Your task to perform on an android device: remove spam from my inbox in the gmail app Image 0: 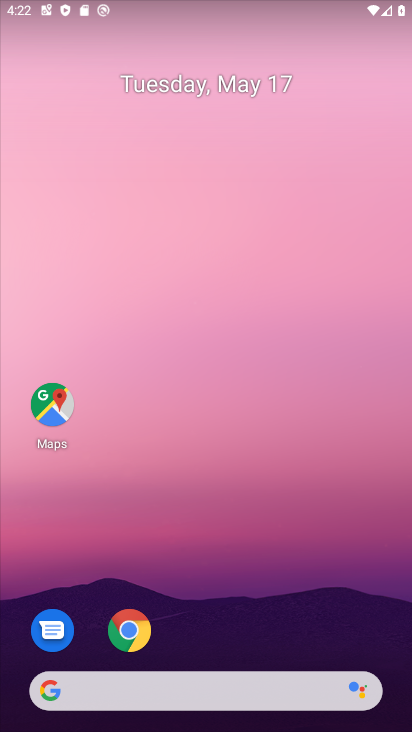
Step 0: drag from (232, 719) to (232, 182)
Your task to perform on an android device: remove spam from my inbox in the gmail app Image 1: 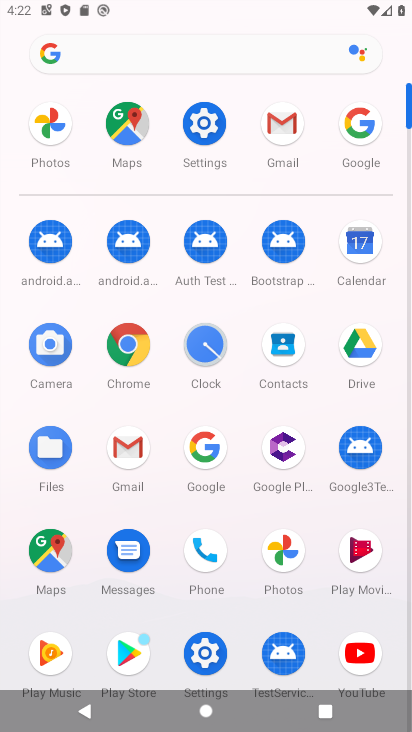
Step 1: click (125, 449)
Your task to perform on an android device: remove spam from my inbox in the gmail app Image 2: 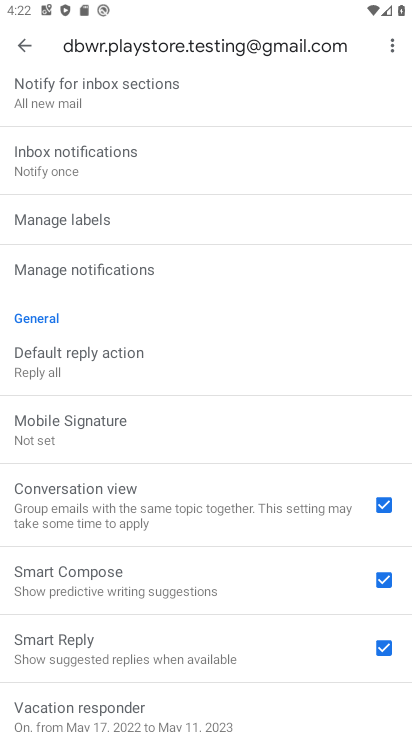
Step 2: click (18, 43)
Your task to perform on an android device: remove spam from my inbox in the gmail app Image 3: 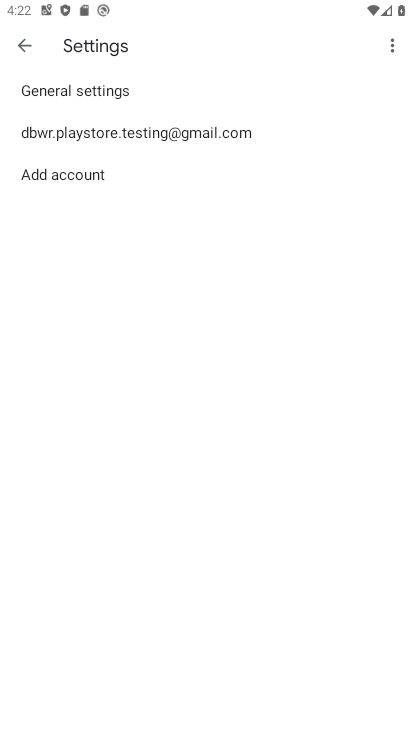
Step 3: click (26, 44)
Your task to perform on an android device: remove spam from my inbox in the gmail app Image 4: 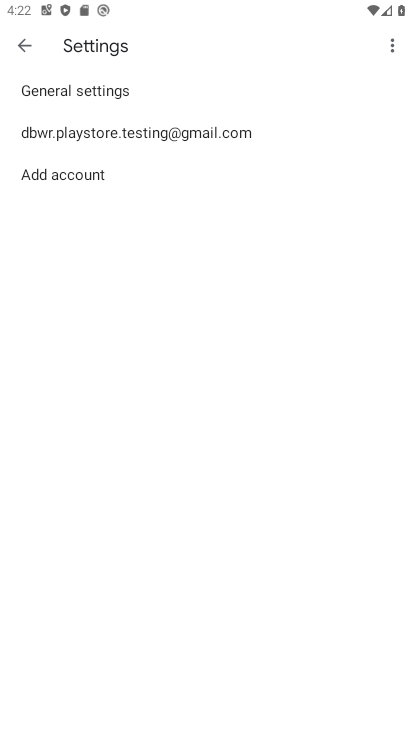
Step 4: click (22, 46)
Your task to perform on an android device: remove spam from my inbox in the gmail app Image 5: 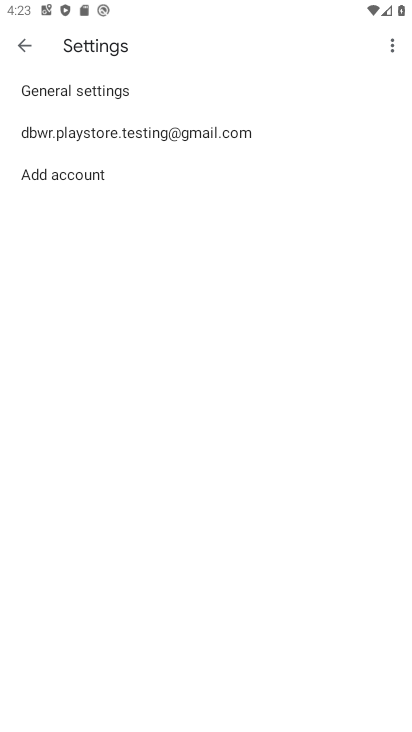
Step 5: click (22, 44)
Your task to perform on an android device: remove spam from my inbox in the gmail app Image 6: 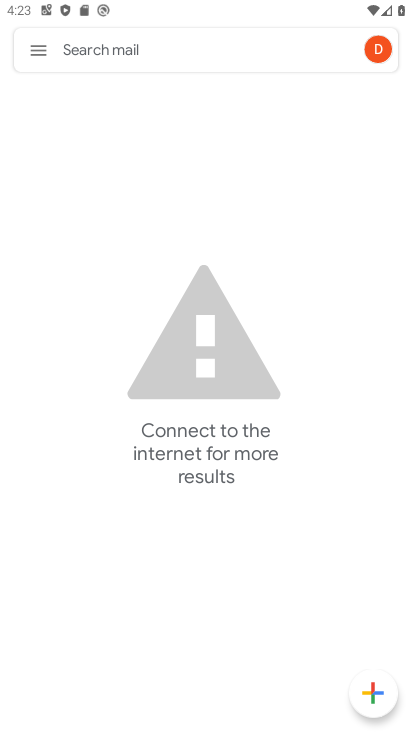
Step 6: task complete